Your task to perform on an android device: Search for vegetarian restaurants on Maps Image 0: 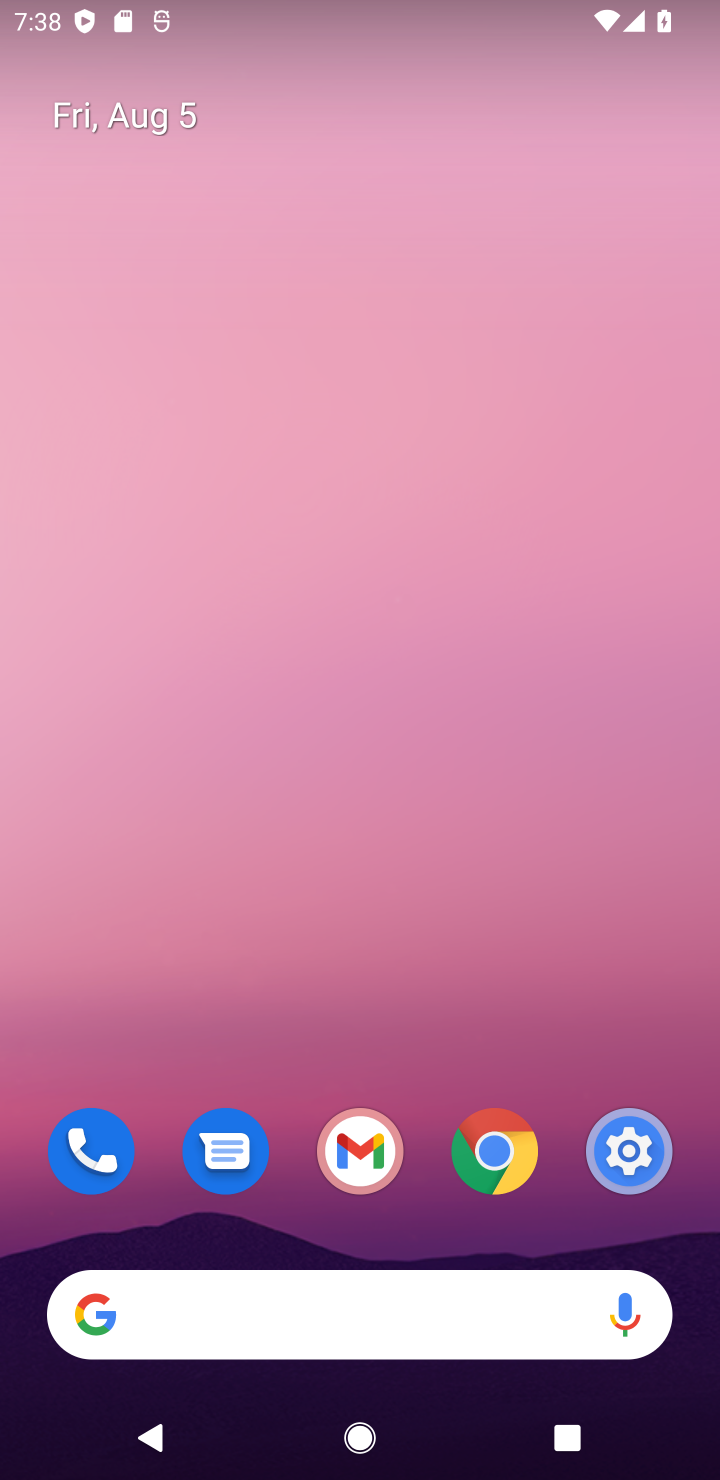
Step 0: drag from (401, 1238) to (416, 71)
Your task to perform on an android device: Search for vegetarian restaurants on Maps Image 1: 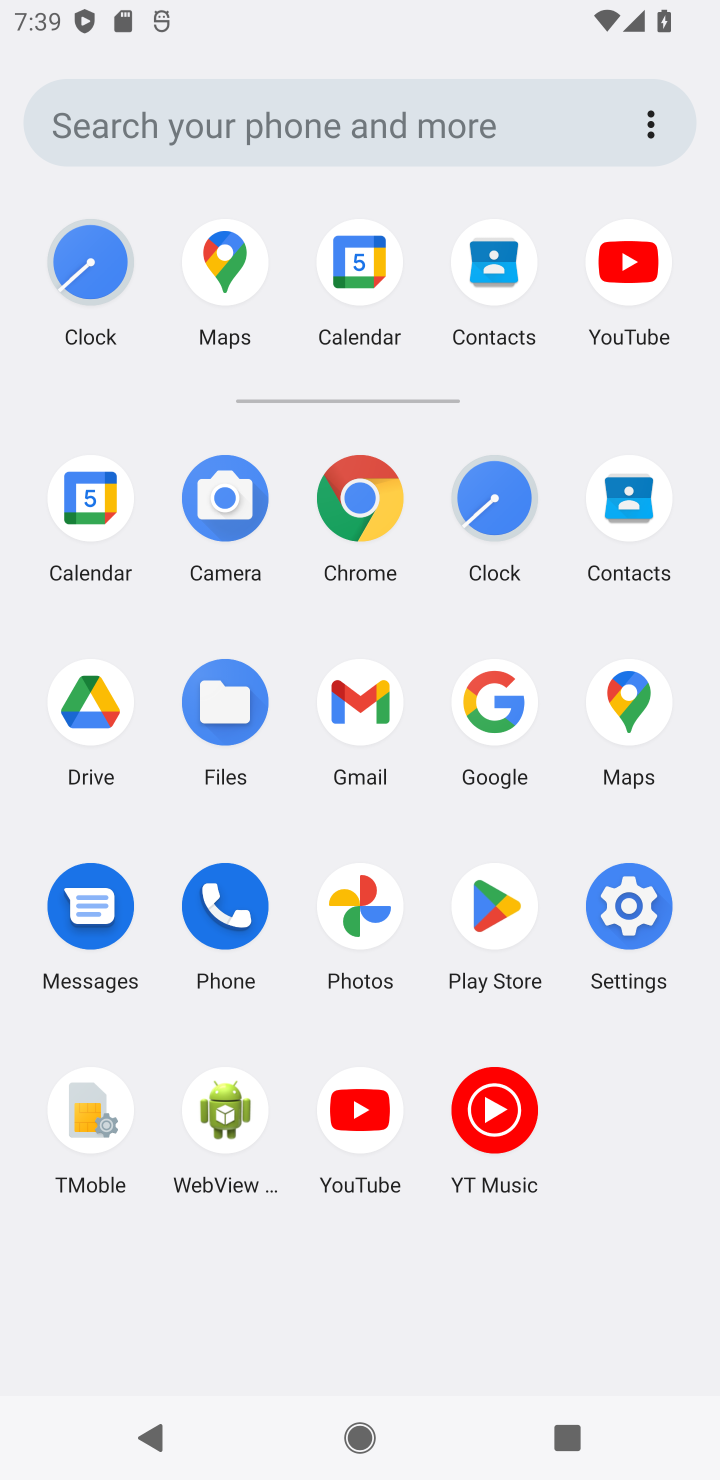
Step 1: click (643, 723)
Your task to perform on an android device: Search for vegetarian restaurants on Maps Image 2: 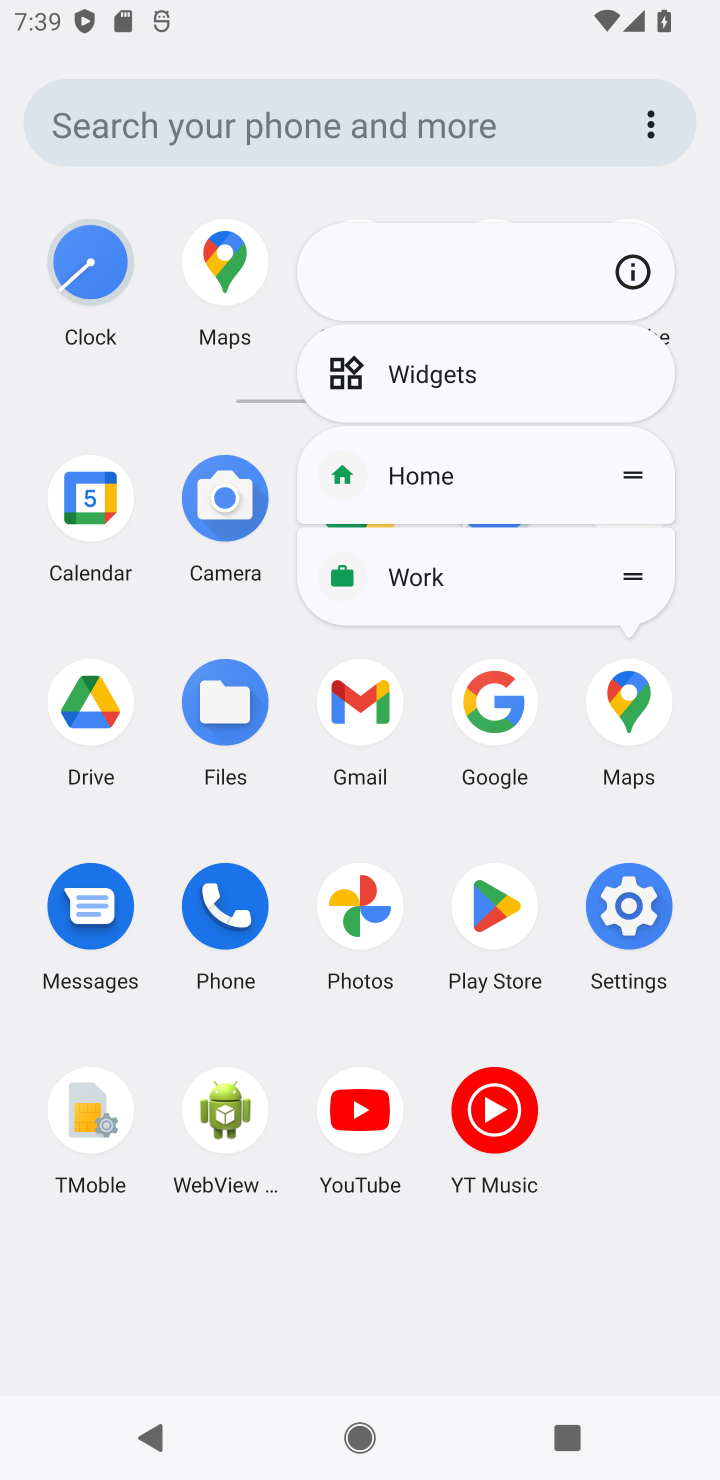
Step 2: click (623, 716)
Your task to perform on an android device: Search for vegetarian restaurants on Maps Image 3: 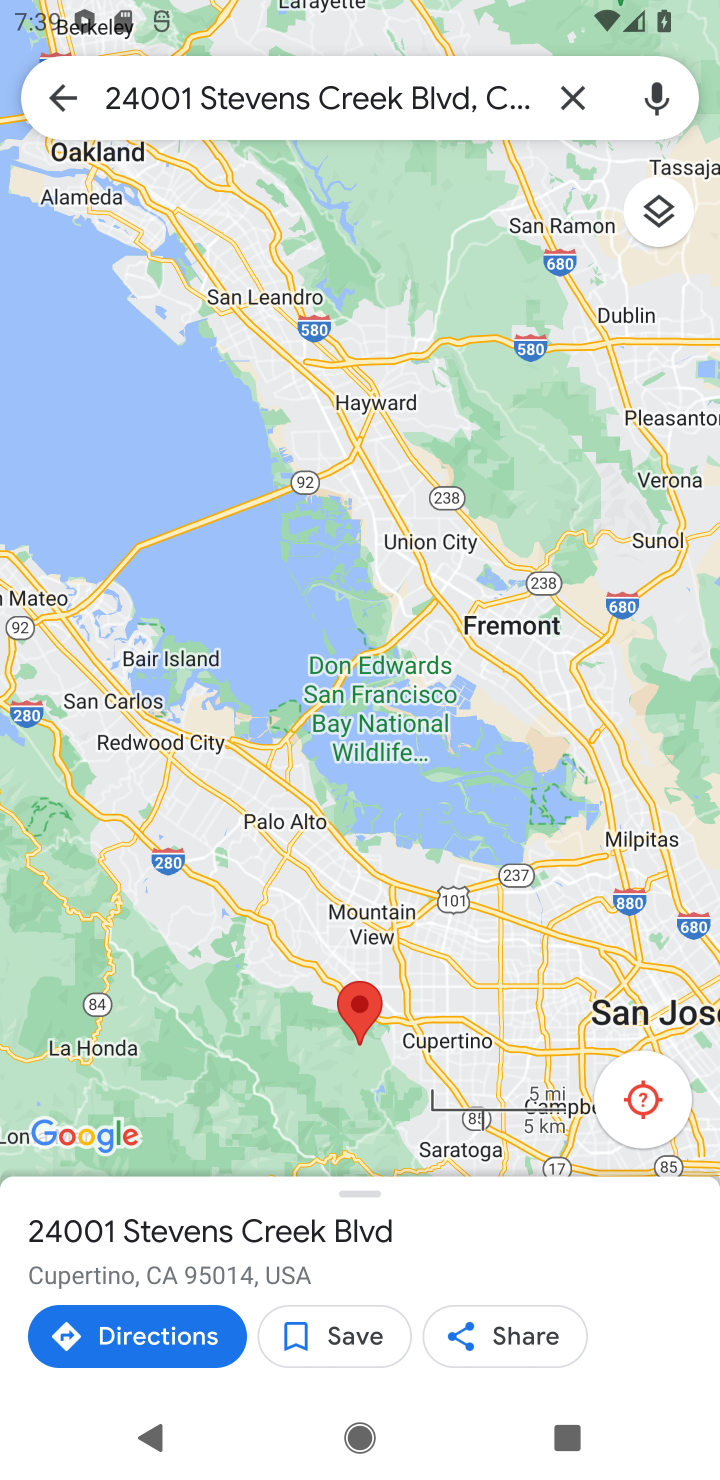
Step 3: click (570, 91)
Your task to perform on an android device: Search for vegetarian restaurants on Maps Image 4: 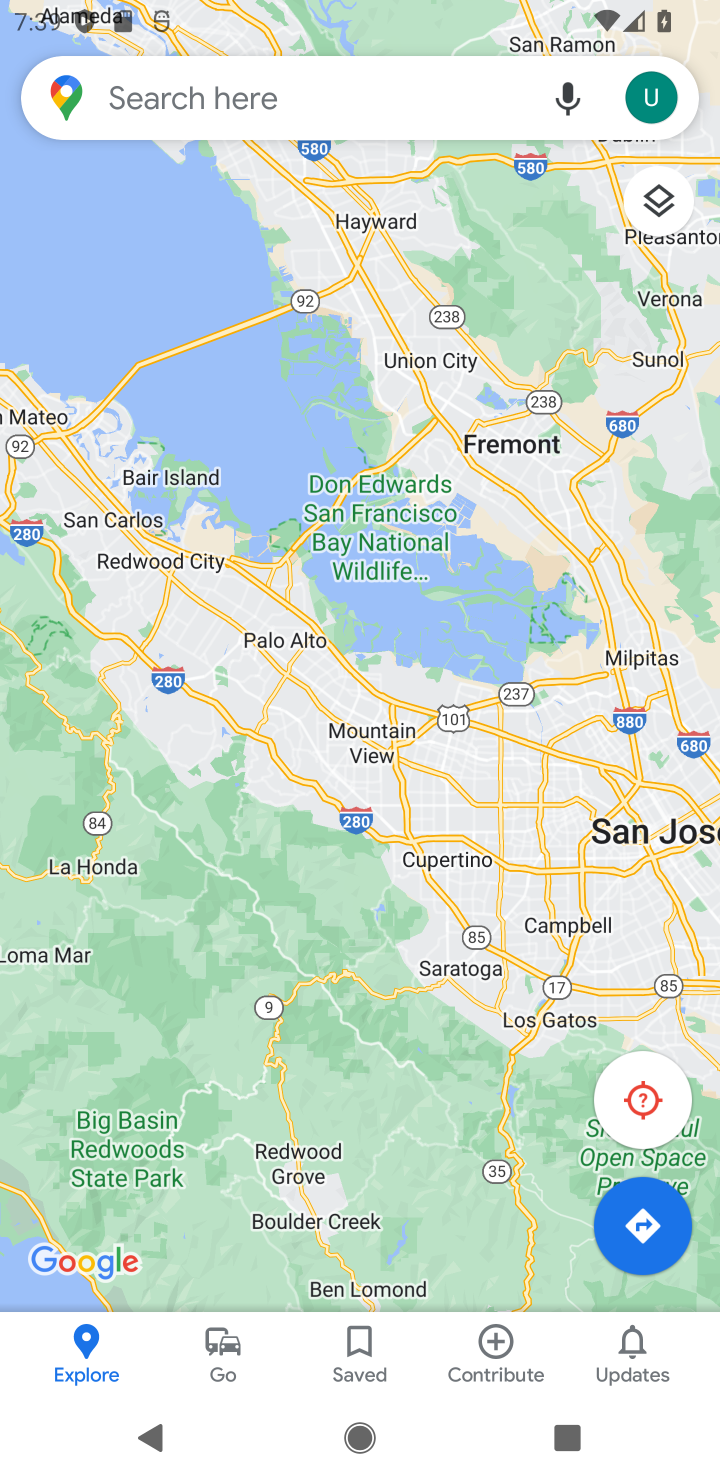
Step 4: click (427, 87)
Your task to perform on an android device: Search for vegetarian restaurants on Maps Image 5: 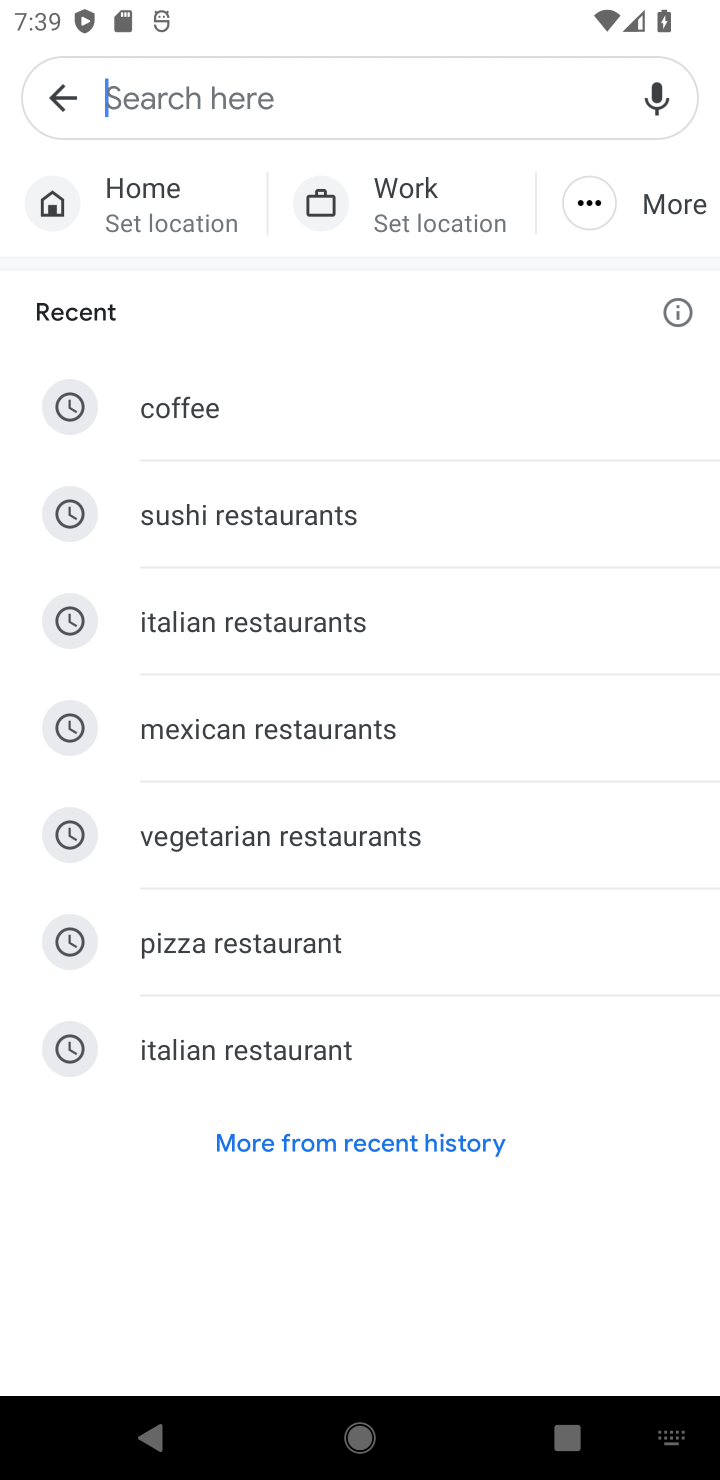
Step 5: type "vegetarian restaurants"
Your task to perform on an android device: Search for vegetarian restaurants on Maps Image 6: 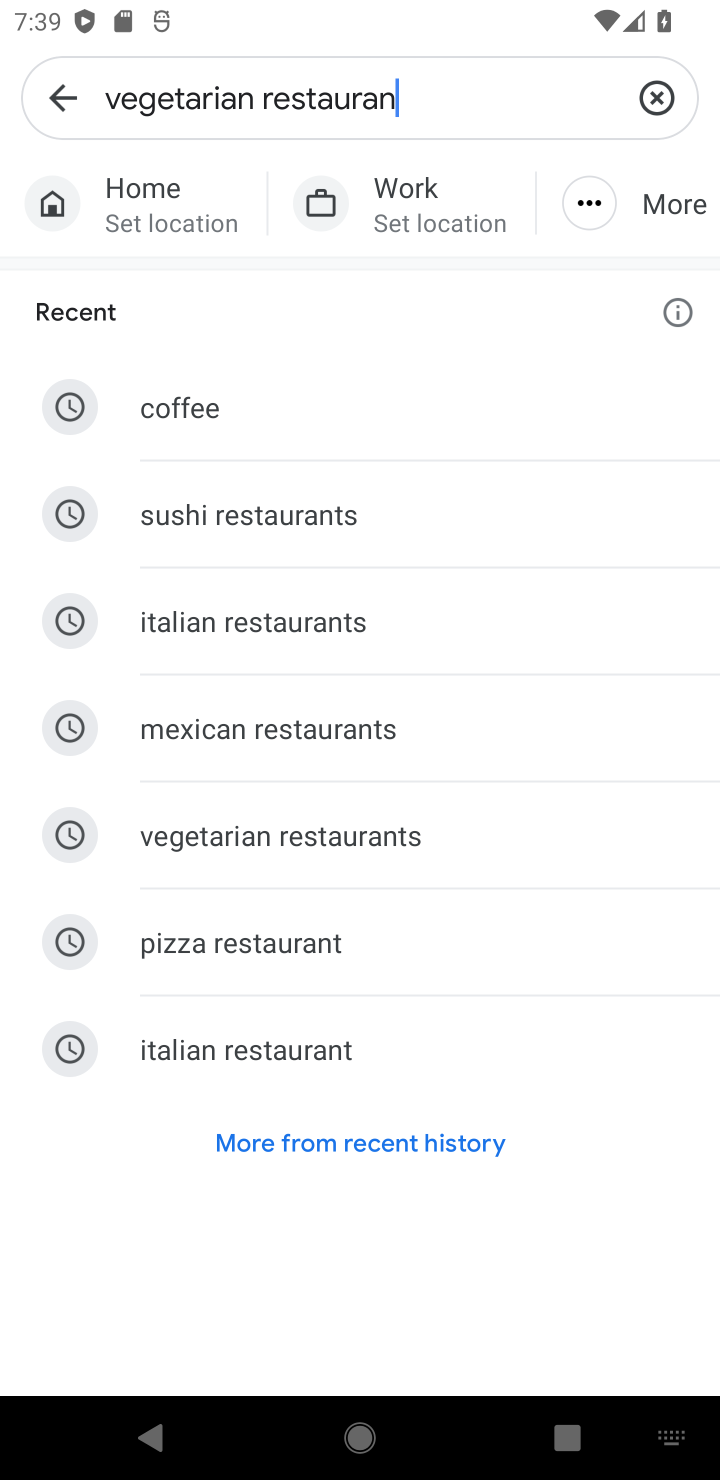
Step 6: type ""
Your task to perform on an android device: Search for vegetarian restaurants on Maps Image 7: 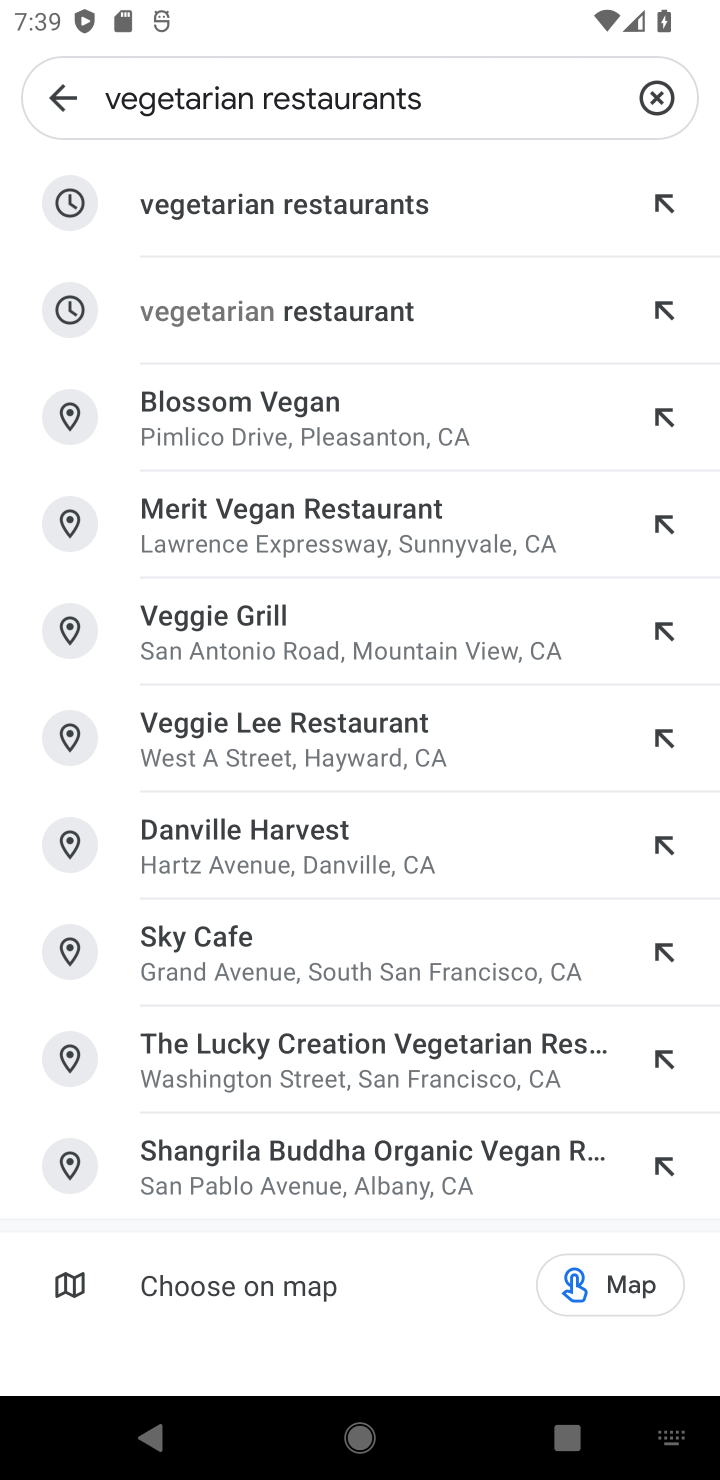
Step 7: click (206, 219)
Your task to perform on an android device: Search for vegetarian restaurants on Maps Image 8: 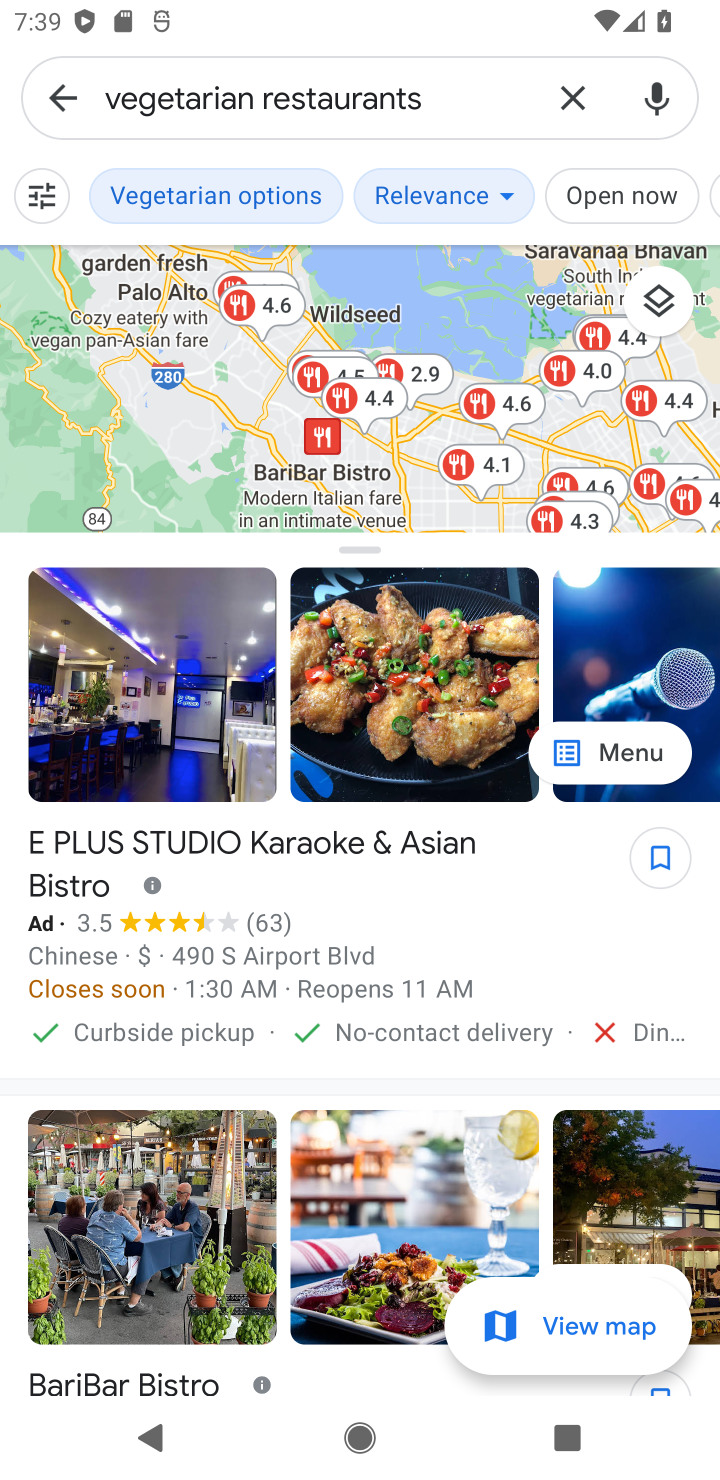
Step 8: task complete